Your task to perform on an android device: see creations saved in the google photos Image 0: 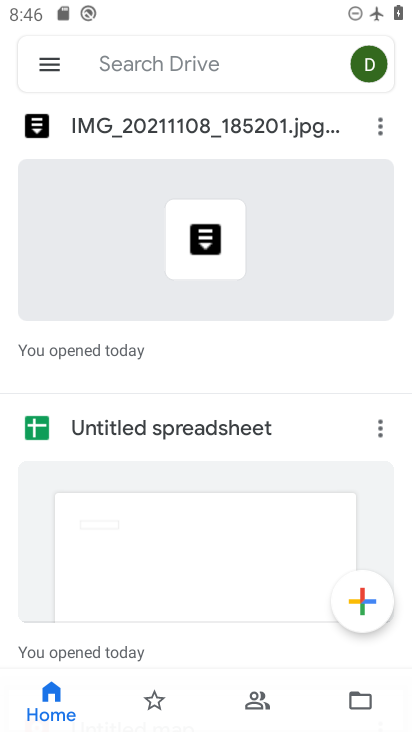
Step 0: press back button
Your task to perform on an android device: see creations saved in the google photos Image 1: 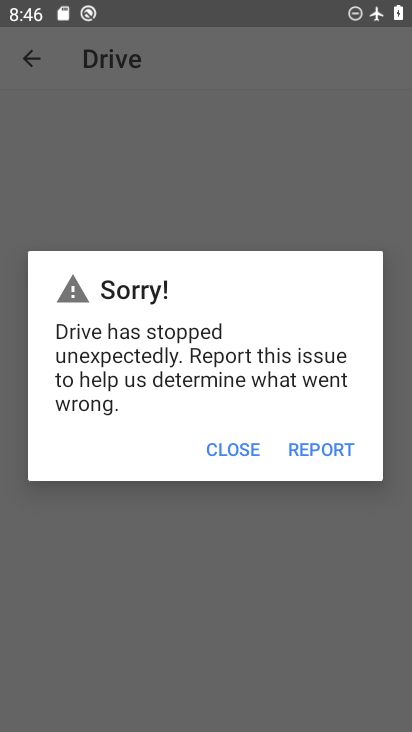
Step 1: press home button
Your task to perform on an android device: see creations saved in the google photos Image 2: 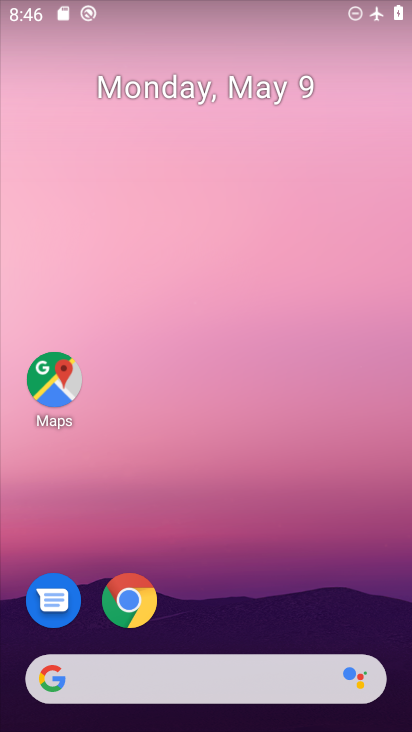
Step 2: drag from (239, 575) to (218, 45)
Your task to perform on an android device: see creations saved in the google photos Image 3: 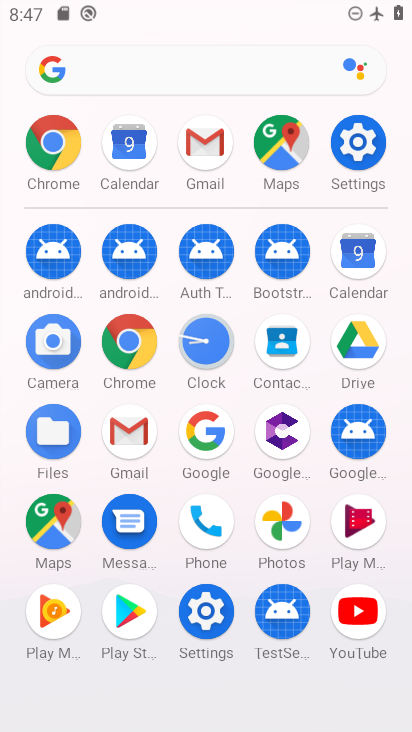
Step 3: click (277, 518)
Your task to perform on an android device: see creations saved in the google photos Image 4: 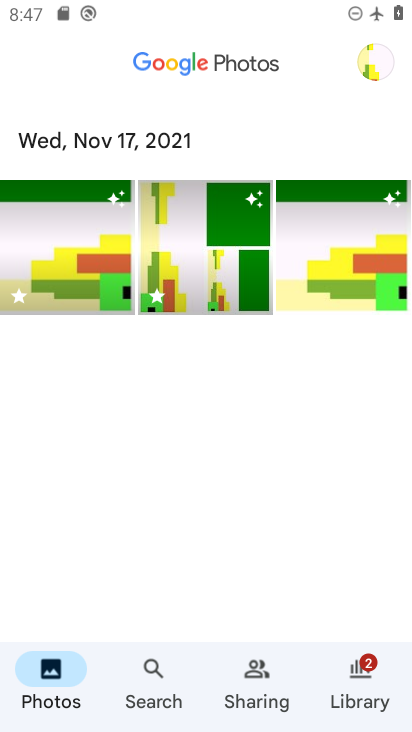
Step 4: task complete